Your task to perform on an android device: Go to Android settings Image 0: 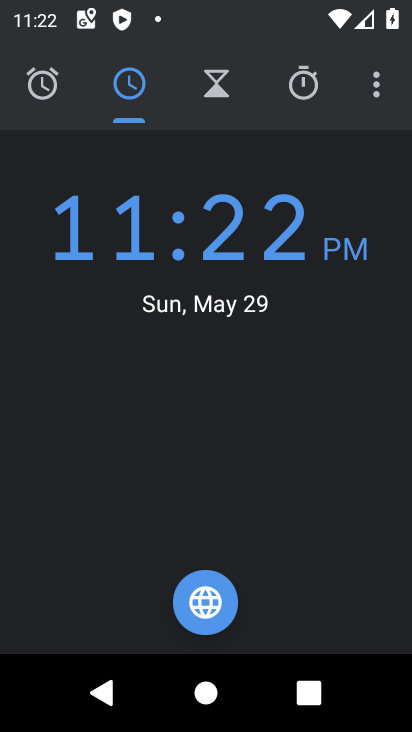
Step 0: press home button
Your task to perform on an android device: Go to Android settings Image 1: 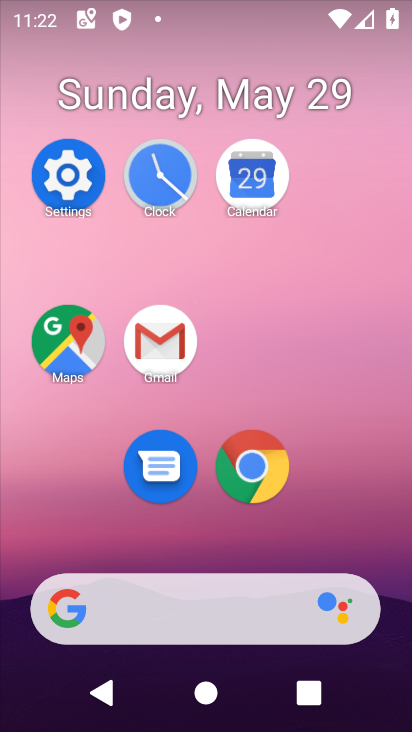
Step 1: click (60, 178)
Your task to perform on an android device: Go to Android settings Image 2: 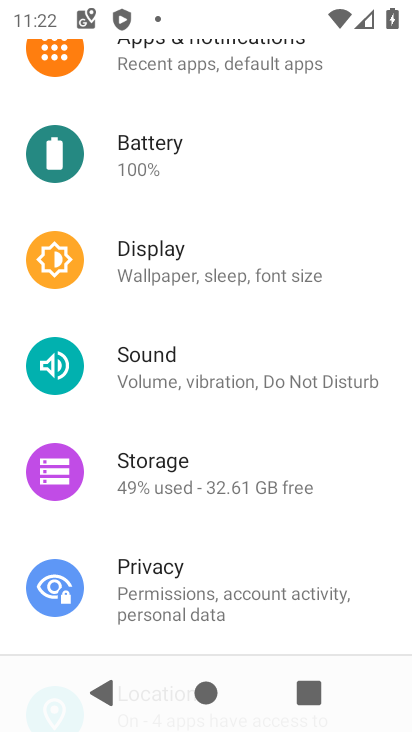
Step 2: task complete